Your task to perform on an android device: Show me popular videos on Youtube Image 0: 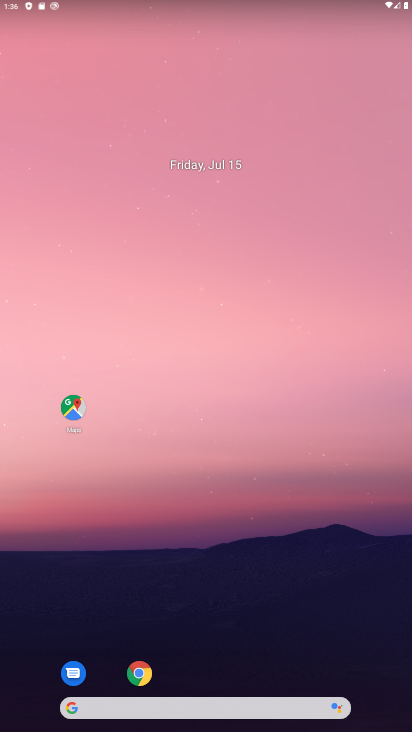
Step 0: drag from (263, 545) to (311, 106)
Your task to perform on an android device: Show me popular videos on Youtube Image 1: 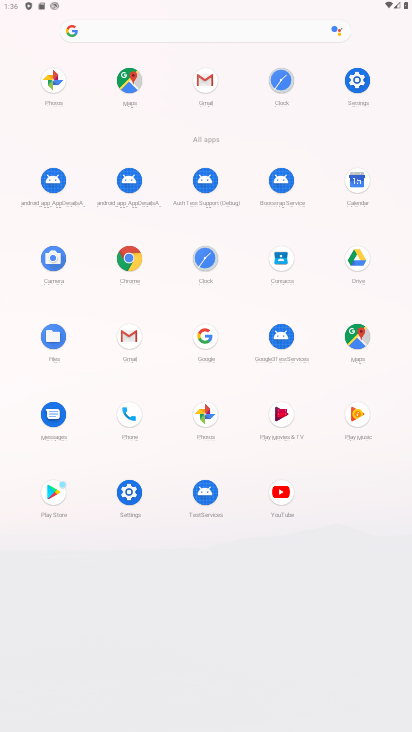
Step 1: click (286, 484)
Your task to perform on an android device: Show me popular videos on Youtube Image 2: 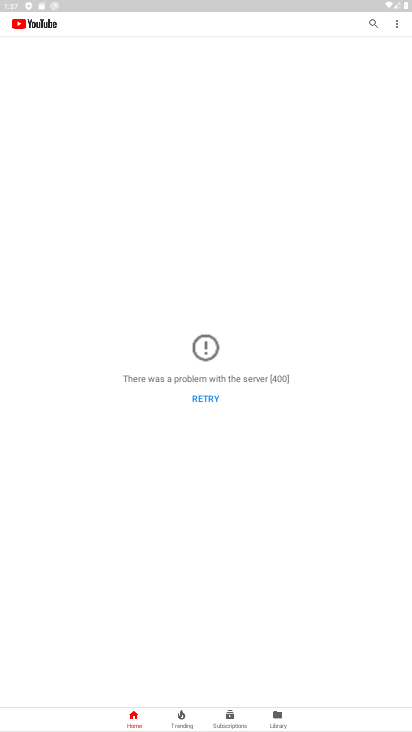
Step 2: click (276, 709)
Your task to perform on an android device: Show me popular videos on Youtube Image 3: 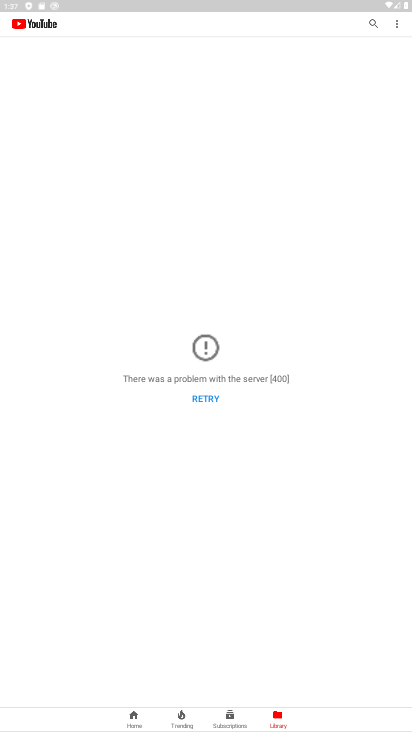
Step 3: task complete